Your task to perform on an android device: change notifications settings Image 0: 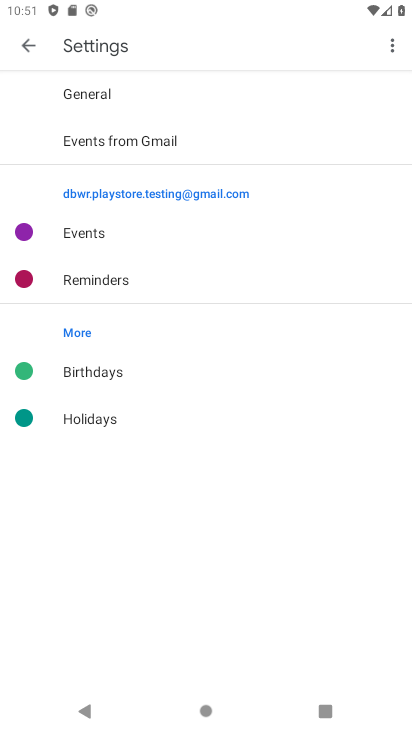
Step 0: press home button
Your task to perform on an android device: change notifications settings Image 1: 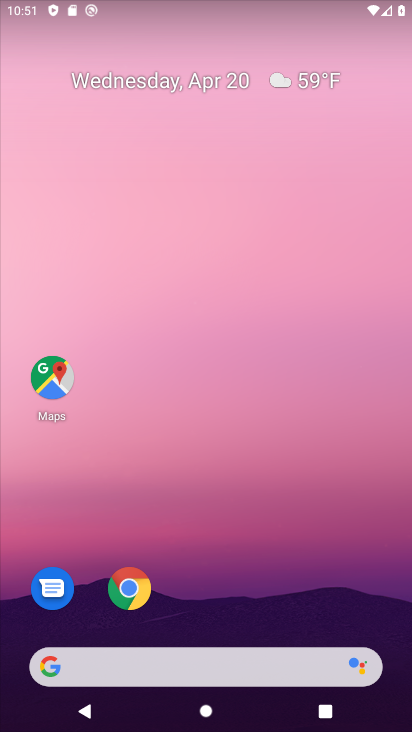
Step 1: drag from (225, 726) to (225, 106)
Your task to perform on an android device: change notifications settings Image 2: 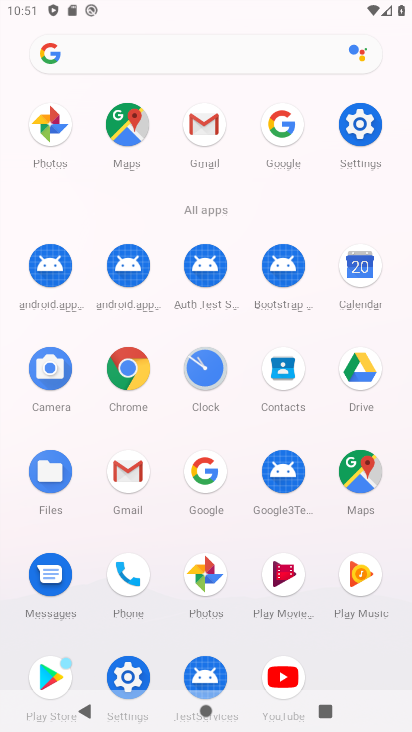
Step 2: click (360, 124)
Your task to perform on an android device: change notifications settings Image 3: 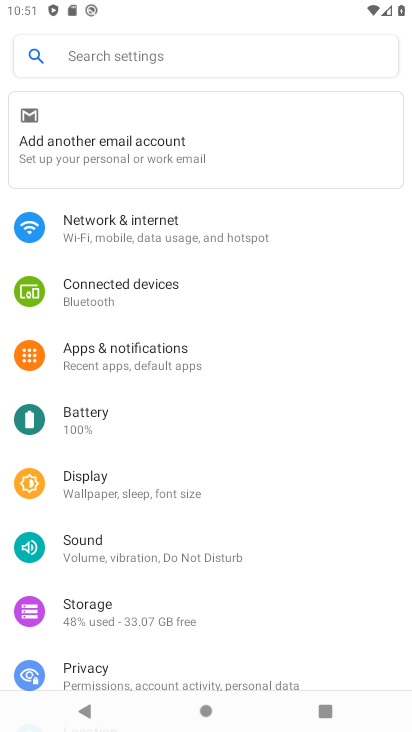
Step 3: click (134, 358)
Your task to perform on an android device: change notifications settings Image 4: 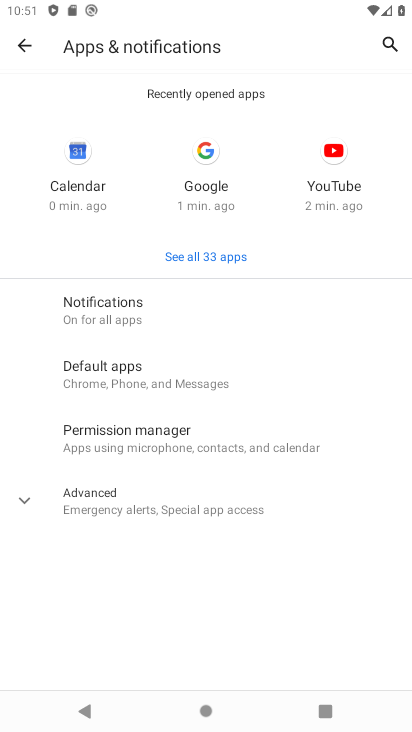
Step 4: click (100, 313)
Your task to perform on an android device: change notifications settings Image 5: 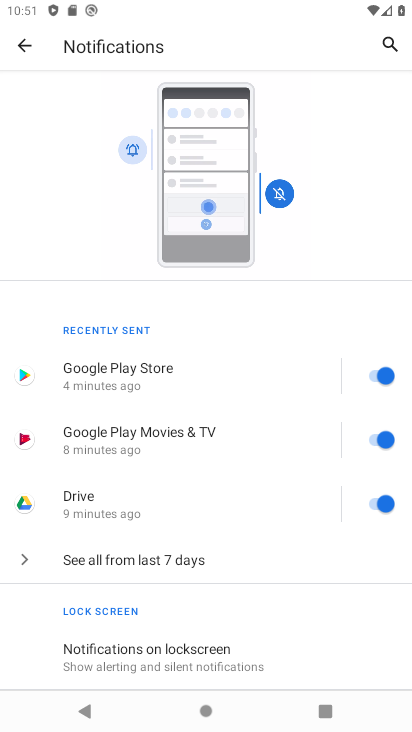
Step 5: drag from (253, 651) to (233, 359)
Your task to perform on an android device: change notifications settings Image 6: 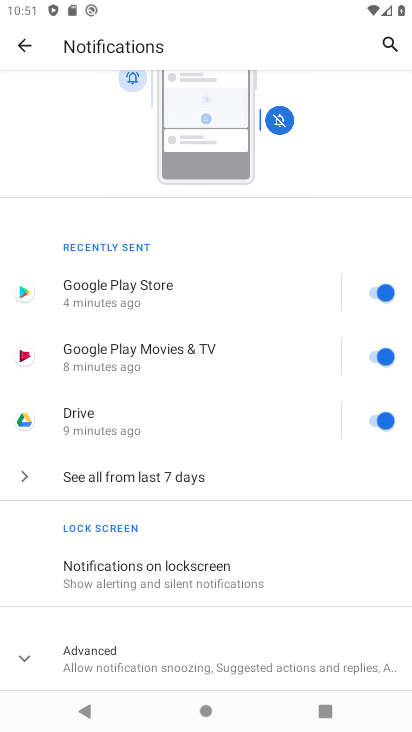
Step 6: click (154, 656)
Your task to perform on an android device: change notifications settings Image 7: 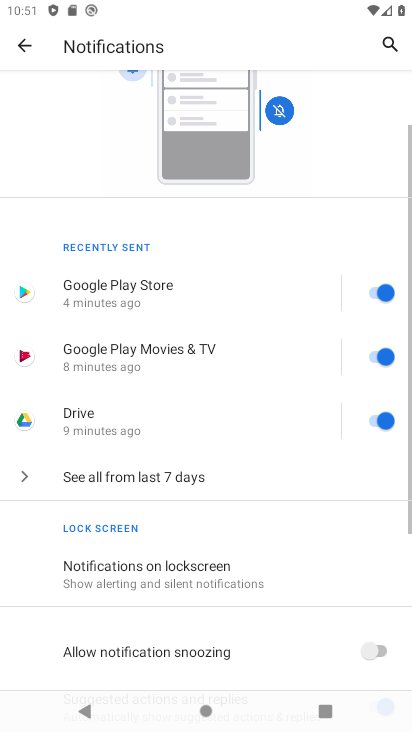
Step 7: drag from (238, 649) to (215, 328)
Your task to perform on an android device: change notifications settings Image 8: 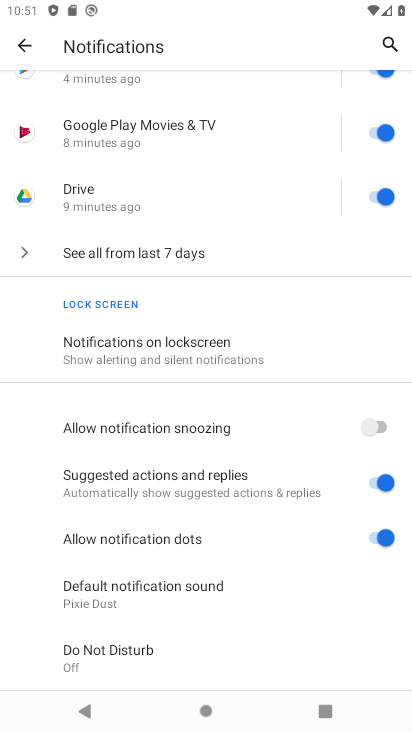
Step 8: click (377, 427)
Your task to perform on an android device: change notifications settings Image 9: 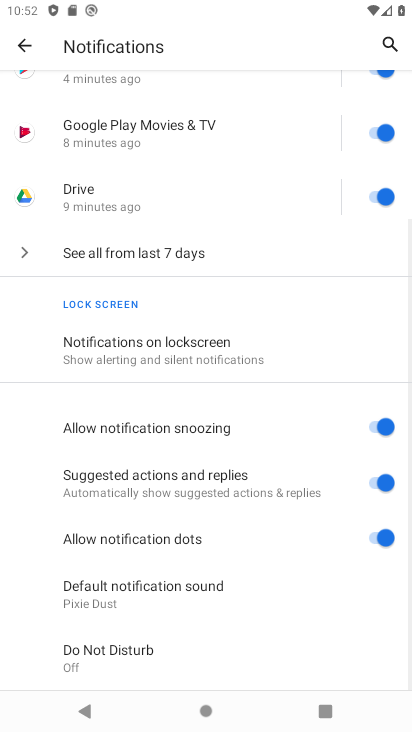
Step 9: task complete